Your task to perform on an android device: set an alarm Image 0: 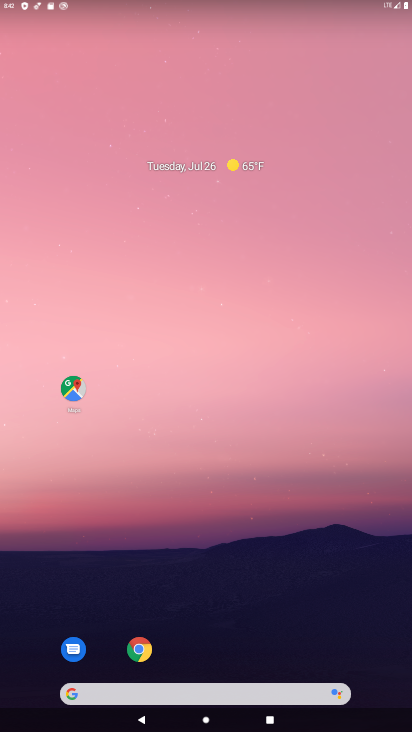
Step 0: drag from (179, 692) to (234, 4)
Your task to perform on an android device: set an alarm Image 1: 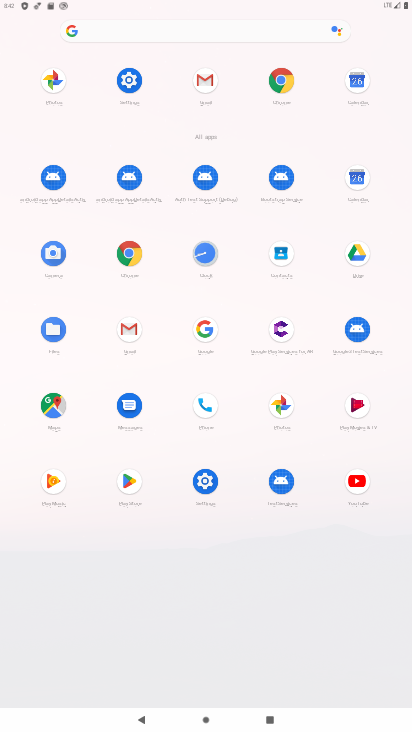
Step 1: click (206, 252)
Your task to perform on an android device: set an alarm Image 2: 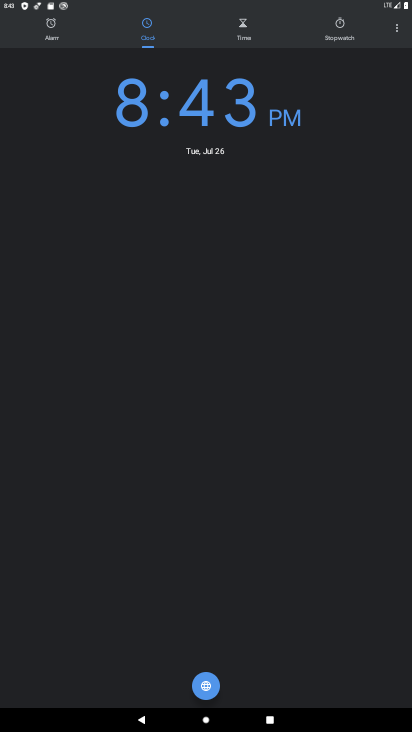
Step 2: click (53, 27)
Your task to perform on an android device: set an alarm Image 3: 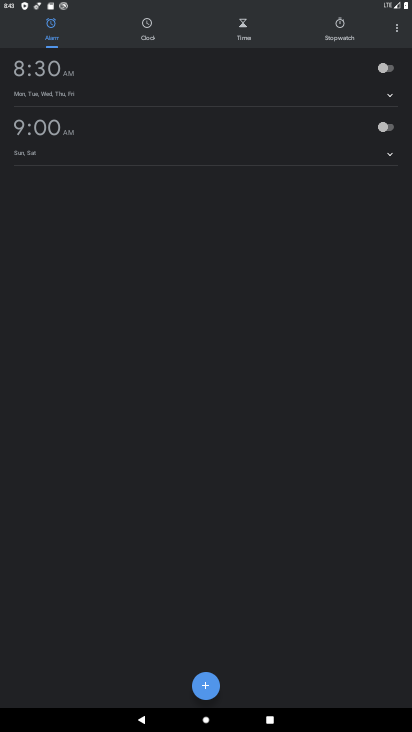
Step 3: click (206, 687)
Your task to perform on an android device: set an alarm Image 4: 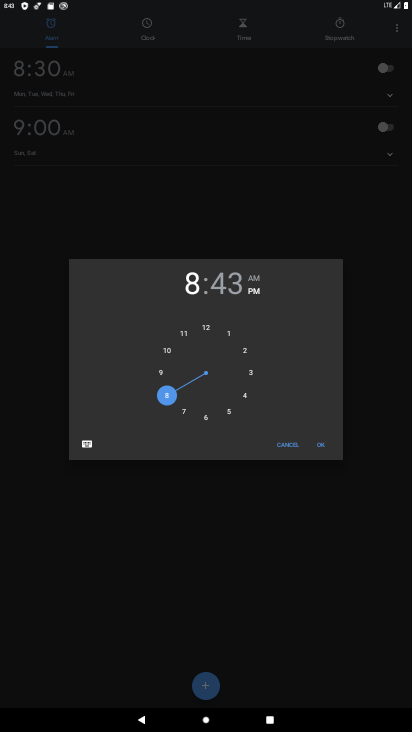
Step 4: click (210, 330)
Your task to perform on an android device: set an alarm Image 5: 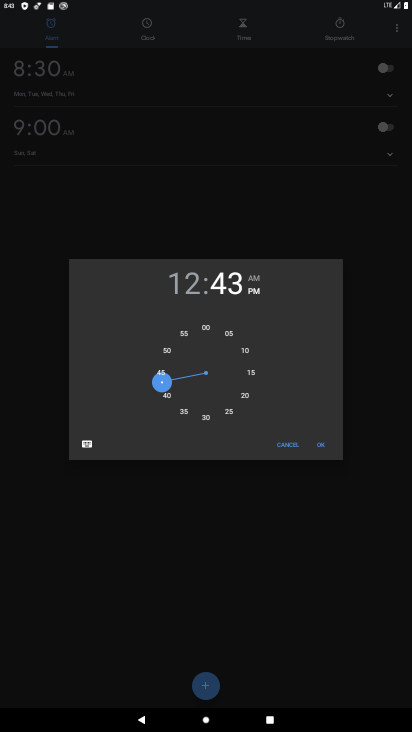
Step 5: click (200, 418)
Your task to perform on an android device: set an alarm Image 6: 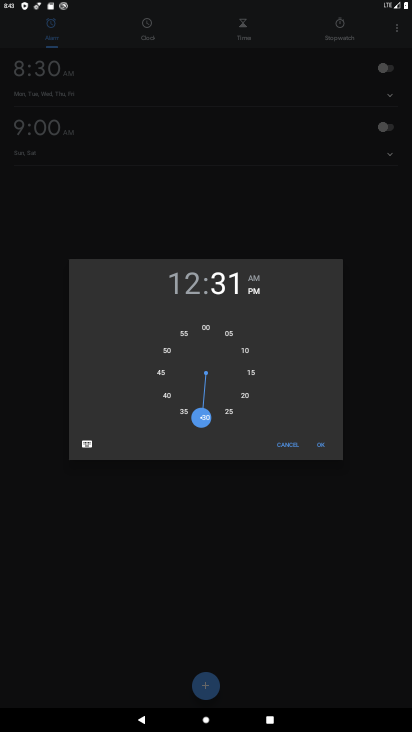
Step 6: click (261, 278)
Your task to perform on an android device: set an alarm Image 7: 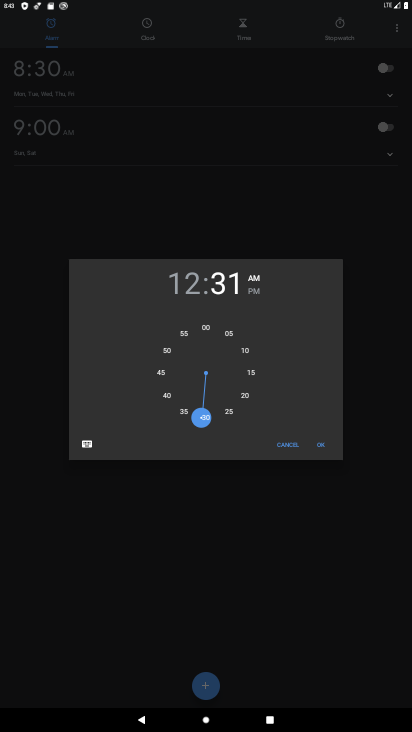
Step 7: click (322, 450)
Your task to perform on an android device: set an alarm Image 8: 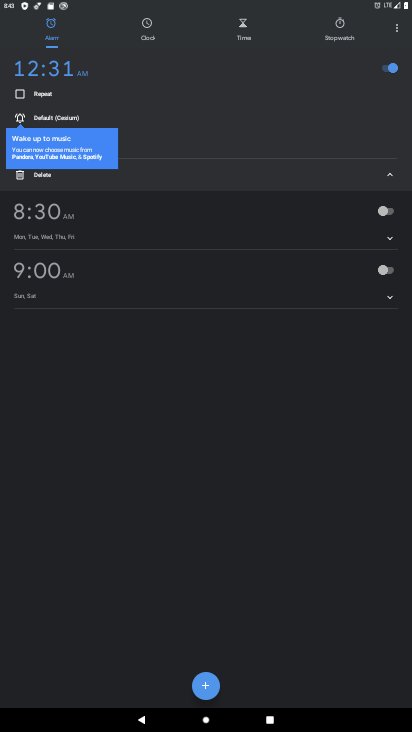
Step 8: task complete